Your task to perform on an android device: turn off smart reply in the gmail app Image 0: 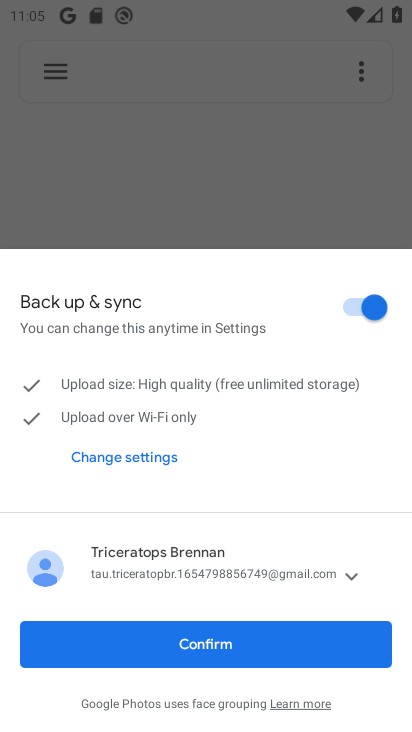
Step 0: press home button
Your task to perform on an android device: turn off smart reply in the gmail app Image 1: 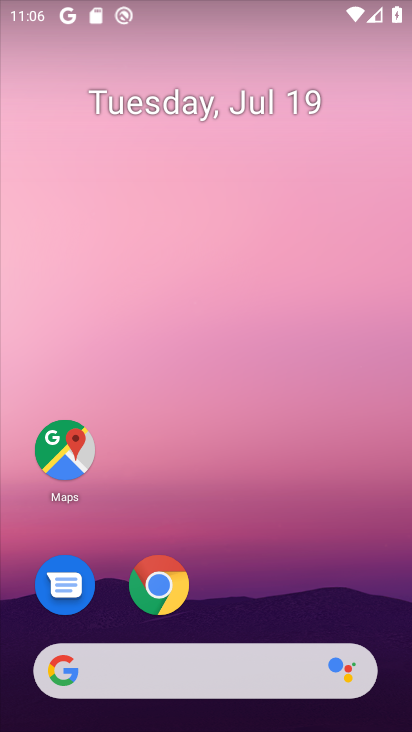
Step 1: drag from (115, 676) to (268, 77)
Your task to perform on an android device: turn off smart reply in the gmail app Image 2: 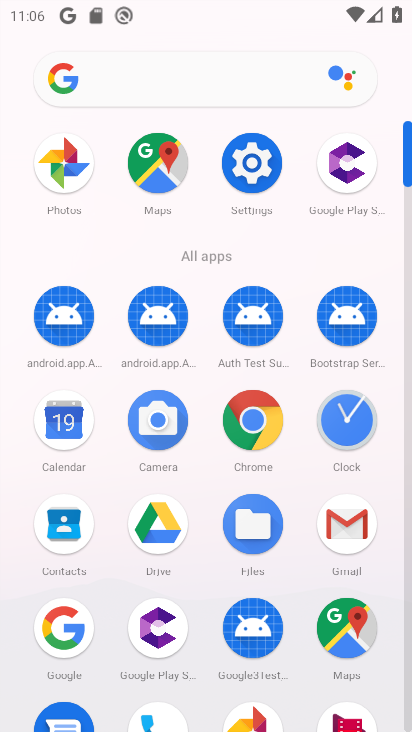
Step 2: click (345, 521)
Your task to perform on an android device: turn off smart reply in the gmail app Image 3: 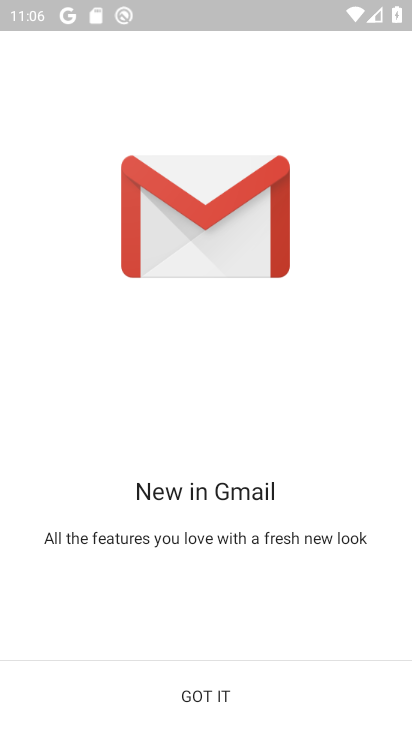
Step 3: click (195, 687)
Your task to perform on an android device: turn off smart reply in the gmail app Image 4: 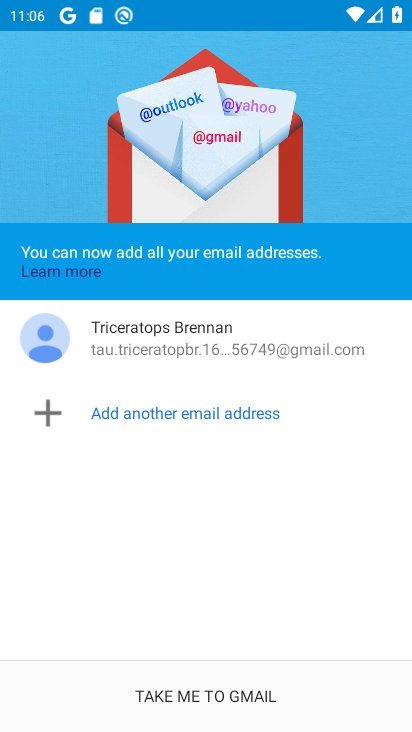
Step 4: click (208, 696)
Your task to perform on an android device: turn off smart reply in the gmail app Image 5: 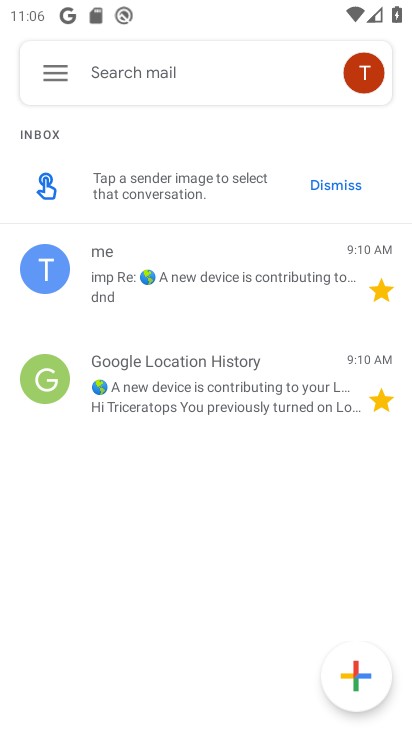
Step 5: click (64, 73)
Your task to perform on an android device: turn off smart reply in the gmail app Image 6: 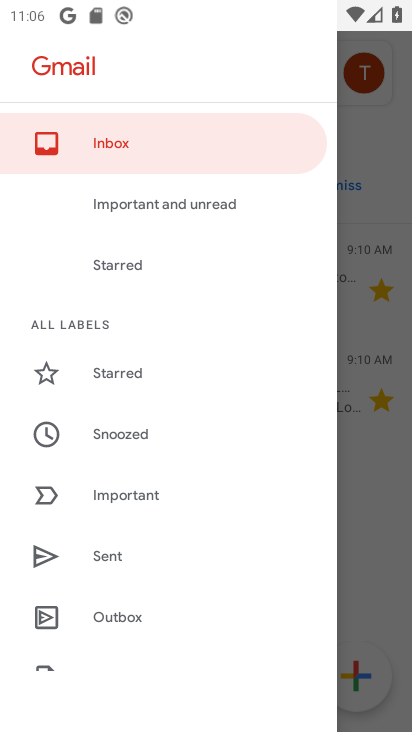
Step 6: drag from (181, 642) to (290, 107)
Your task to perform on an android device: turn off smart reply in the gmail app Image 7: 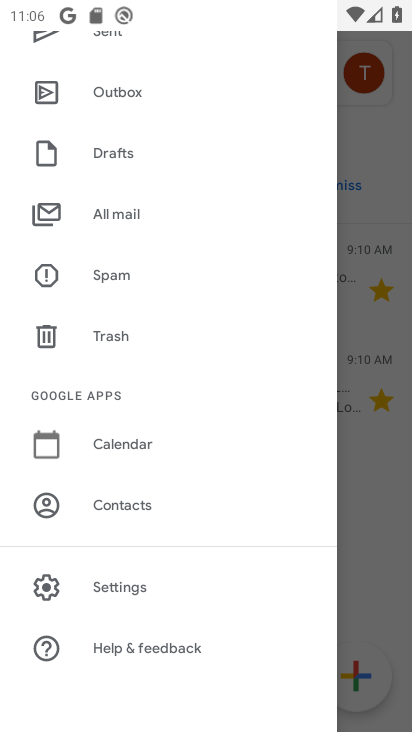
Step 7: click (141, 592)
Your task to perform on an android device: turn off smart reply in the gmail app Image 8: 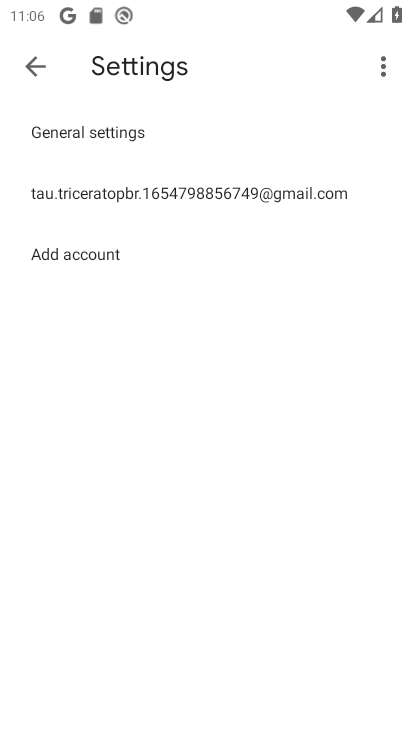
Step 8: click (243, 184)
Your task to perform on an android device: turn off smart reply in the gmail app Image 9: 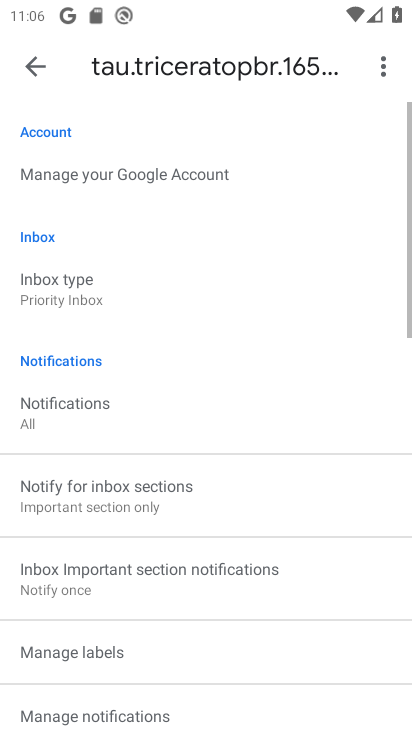
Step 9: drag from (212, 645) to (359, 48)
Your task to perform on an android device: turn off smart reply in the gmail app Image 10: 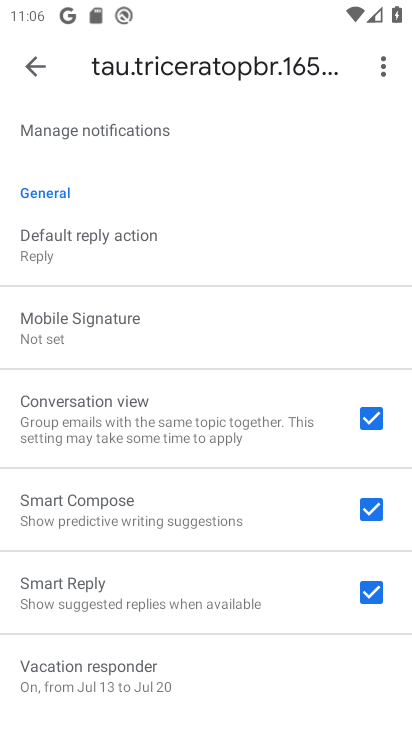
Step 10: click (376, 585)
Your task to perform on an android device: turn off smart reply in the gmail app Image 11: 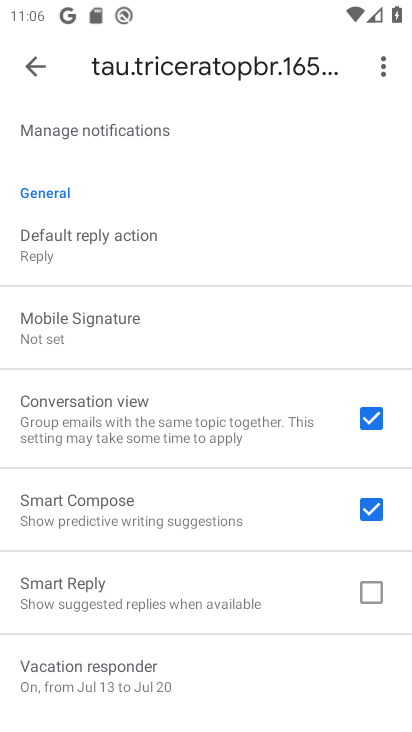
Step 11: task complete